Your task to perform on an android device: Open the web browser Image 0: 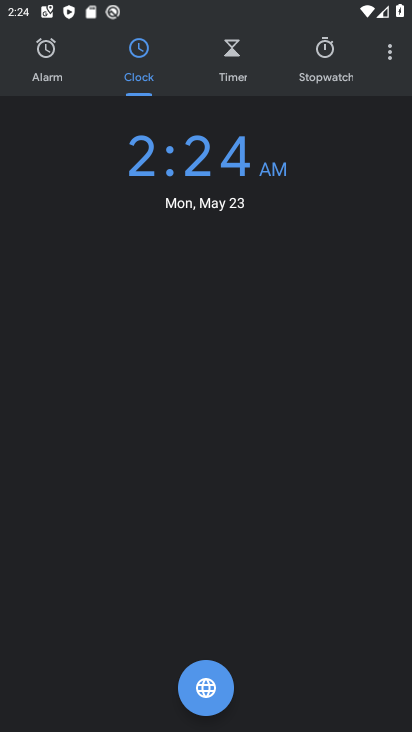
Step 0: press home button
Your task to perform on an android device: Open the web browser Image 1: 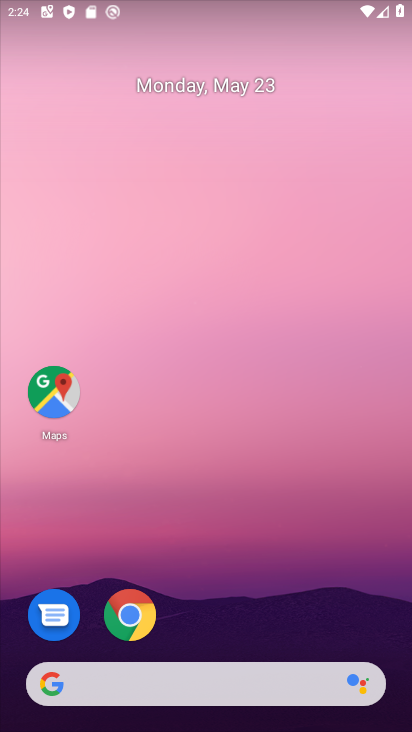
Step 1: click (131, 619)
Your task to perform on an android device: Open the web browser Image 2: 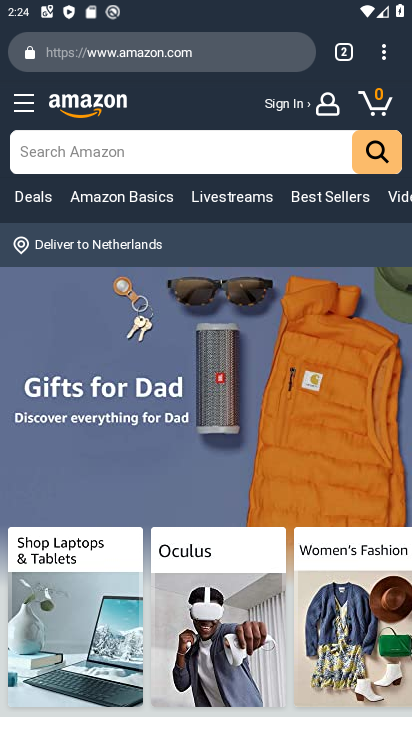
Step 2: task complete